Your task to perform on an android device: uninstall "The Home Depot" Image 0: 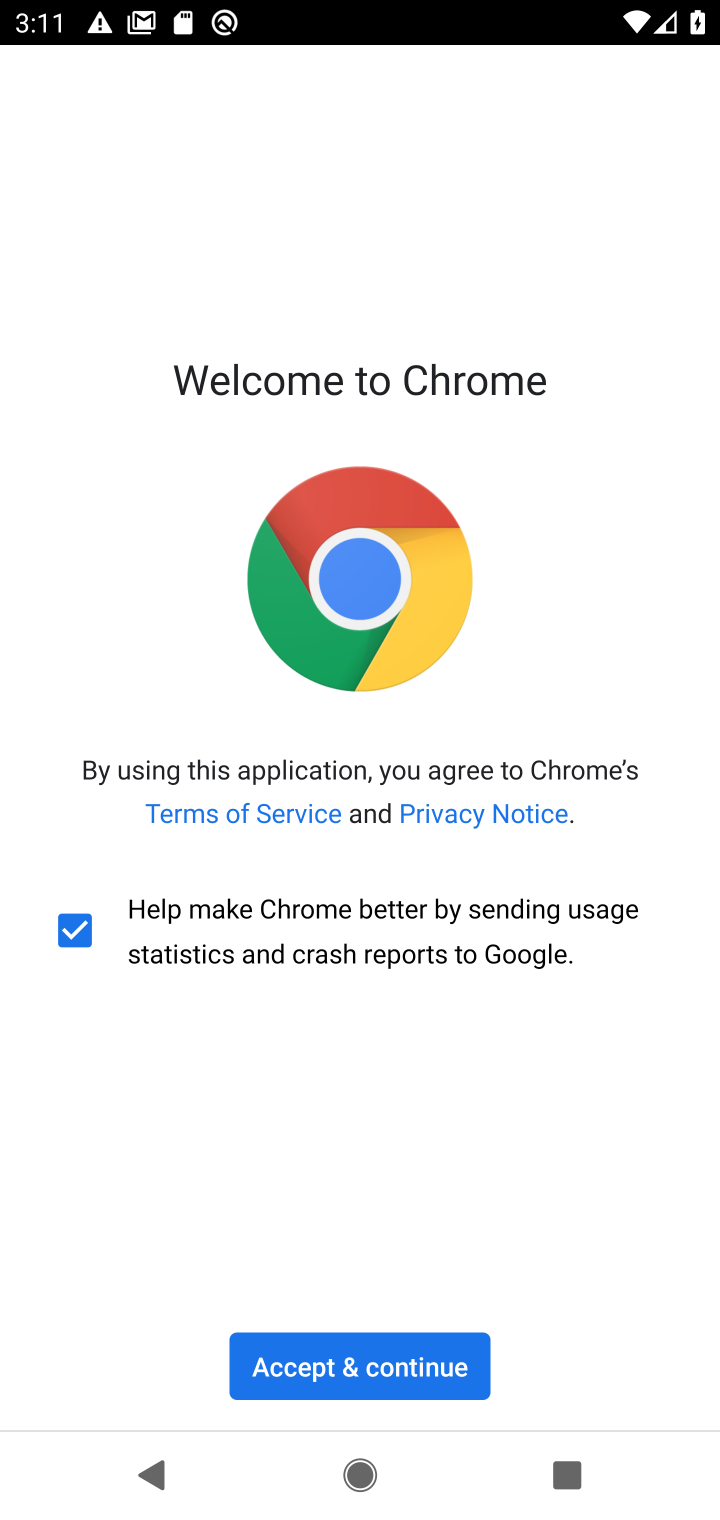
Step 0: press home button
Your task to perform on an android device: uninstall "The Home Depot" Image 1: 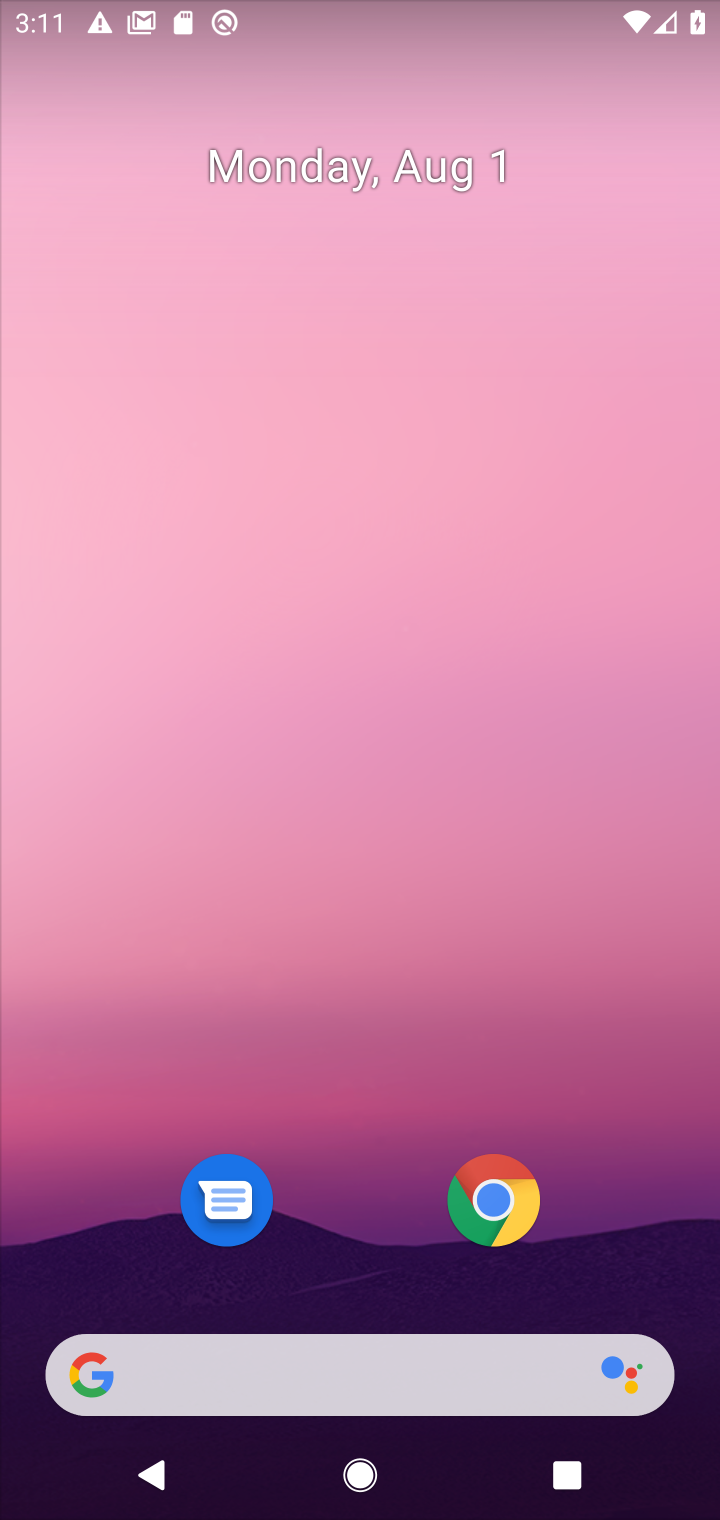
Step 1: drag from (268, 627) to (332, 7)
Your task to perform on an android device: uninstall "The Home Depot" Image 2: 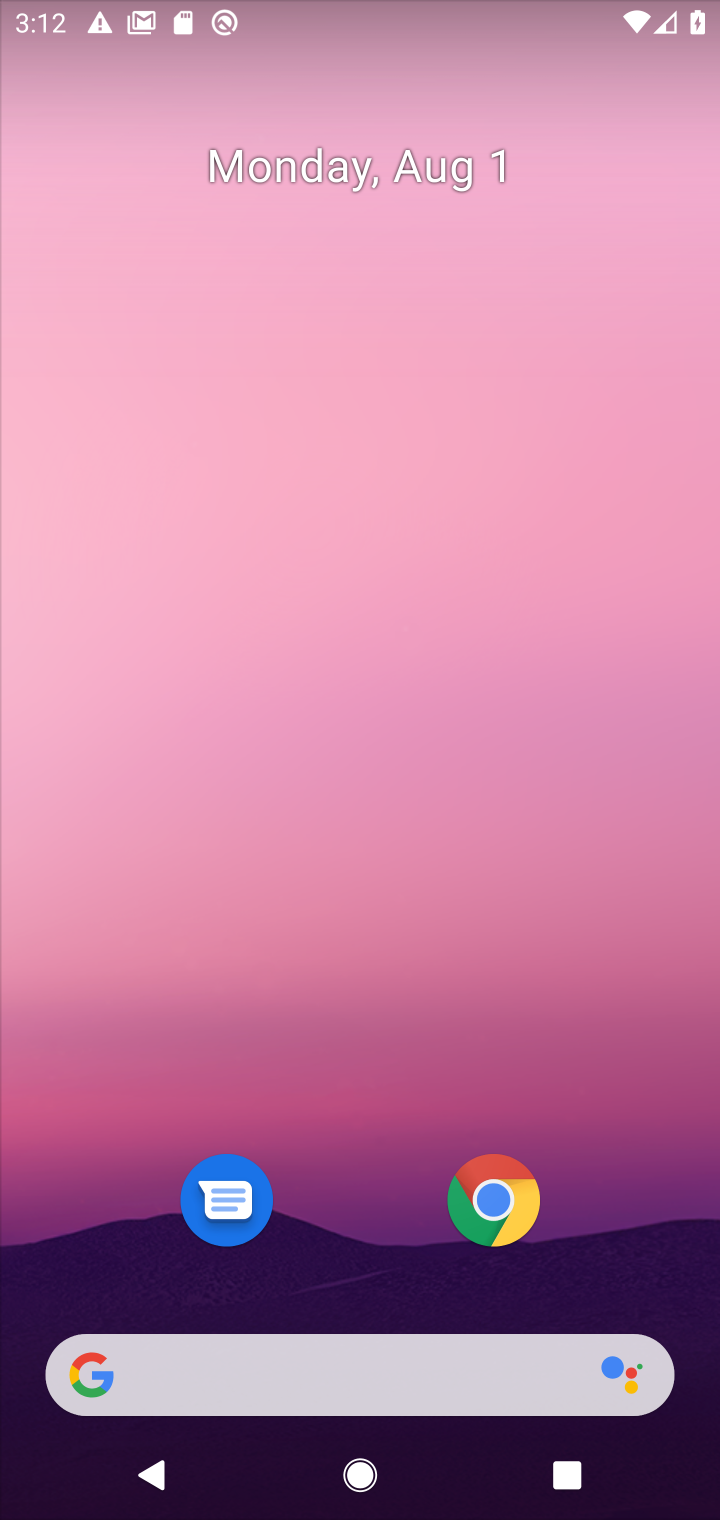
Step 2: drag from (337, 733) to (476, 32)
Your task to perform on an android device: uninstall "The Home Depot" Image 3: 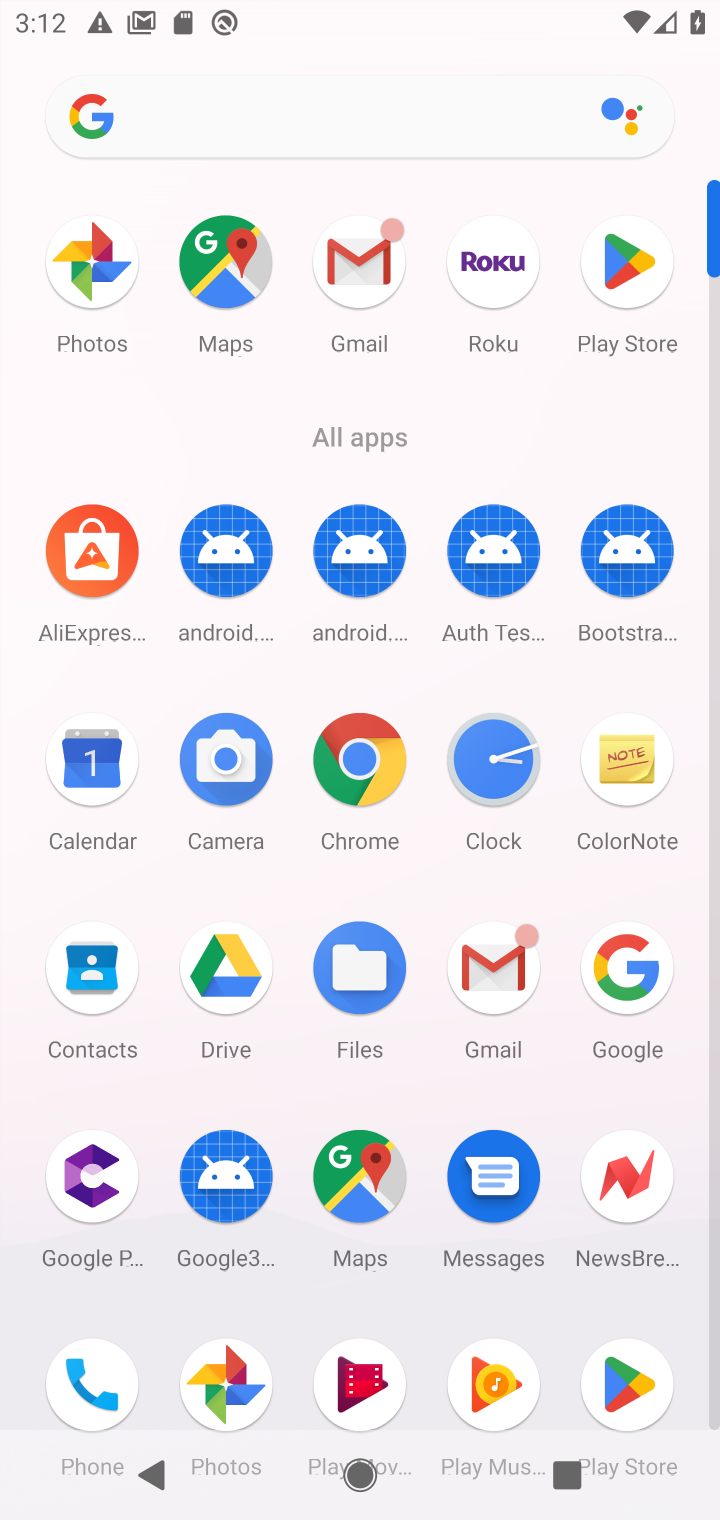
Step 3: click (629, 1355)
Your task to perform on an android device: uninstall "The Home Depot" Image 4: 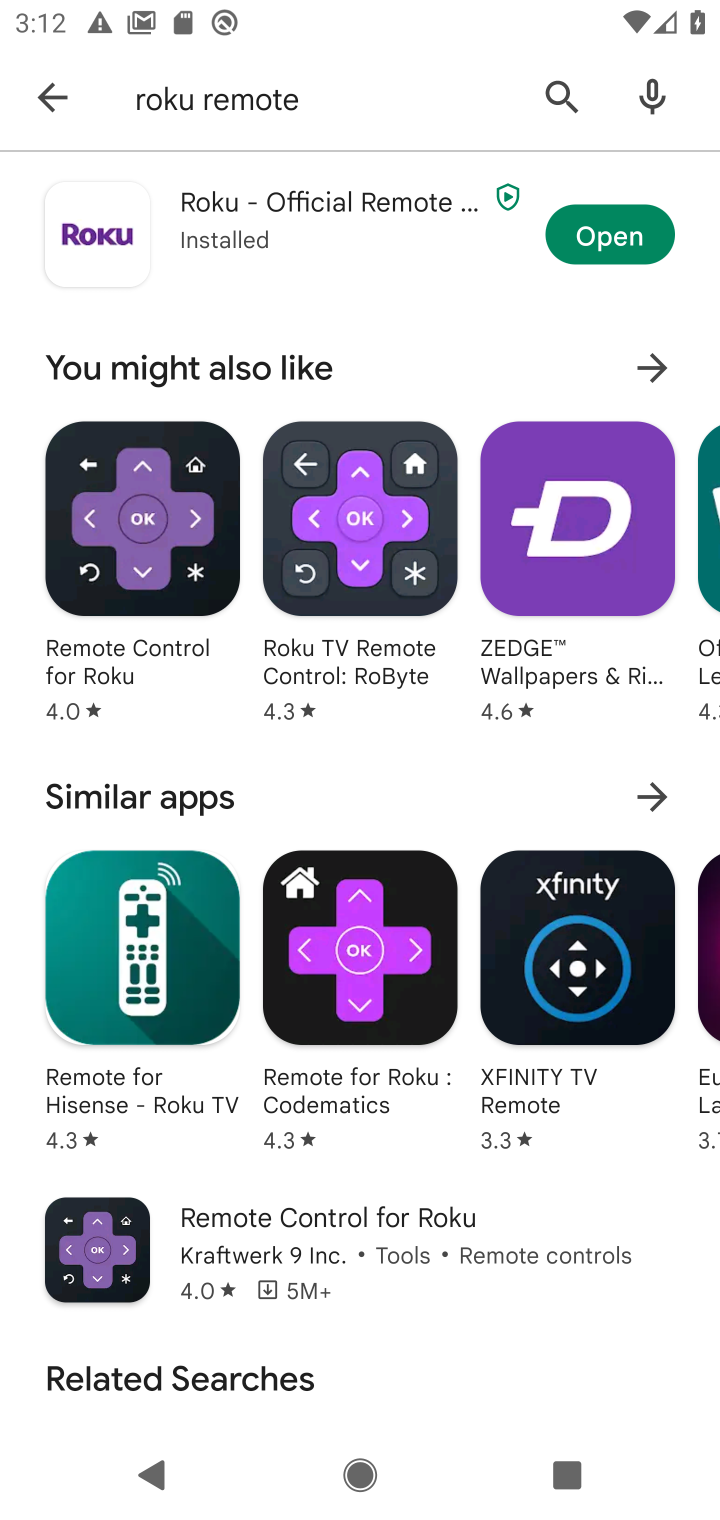
Step 4: click (629, 1355)
Your task to perform on an android device: uninstall "The Home Depot" Image 5: 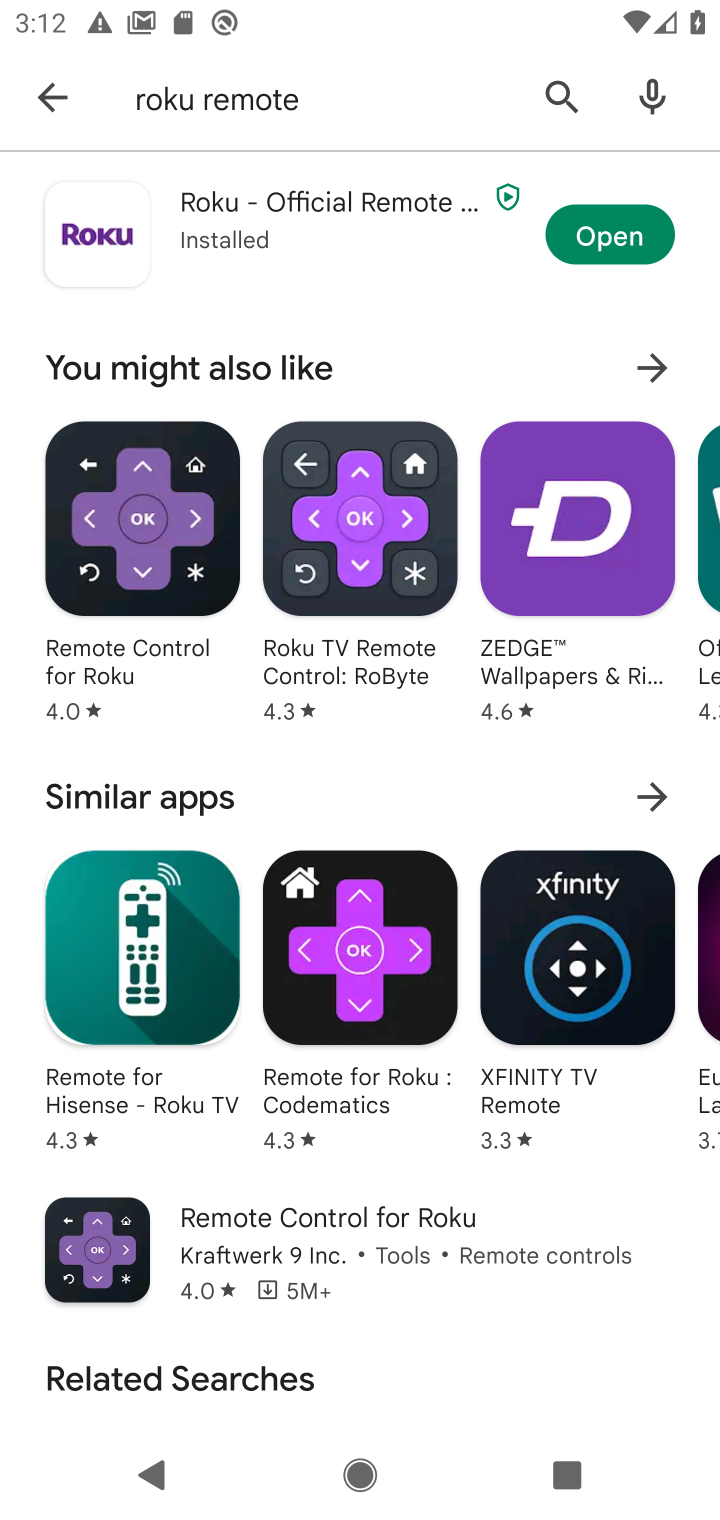
Step 5: click (225, 133)
Your task to perform on an android device: uninstall "The Home Depot" Image 6: 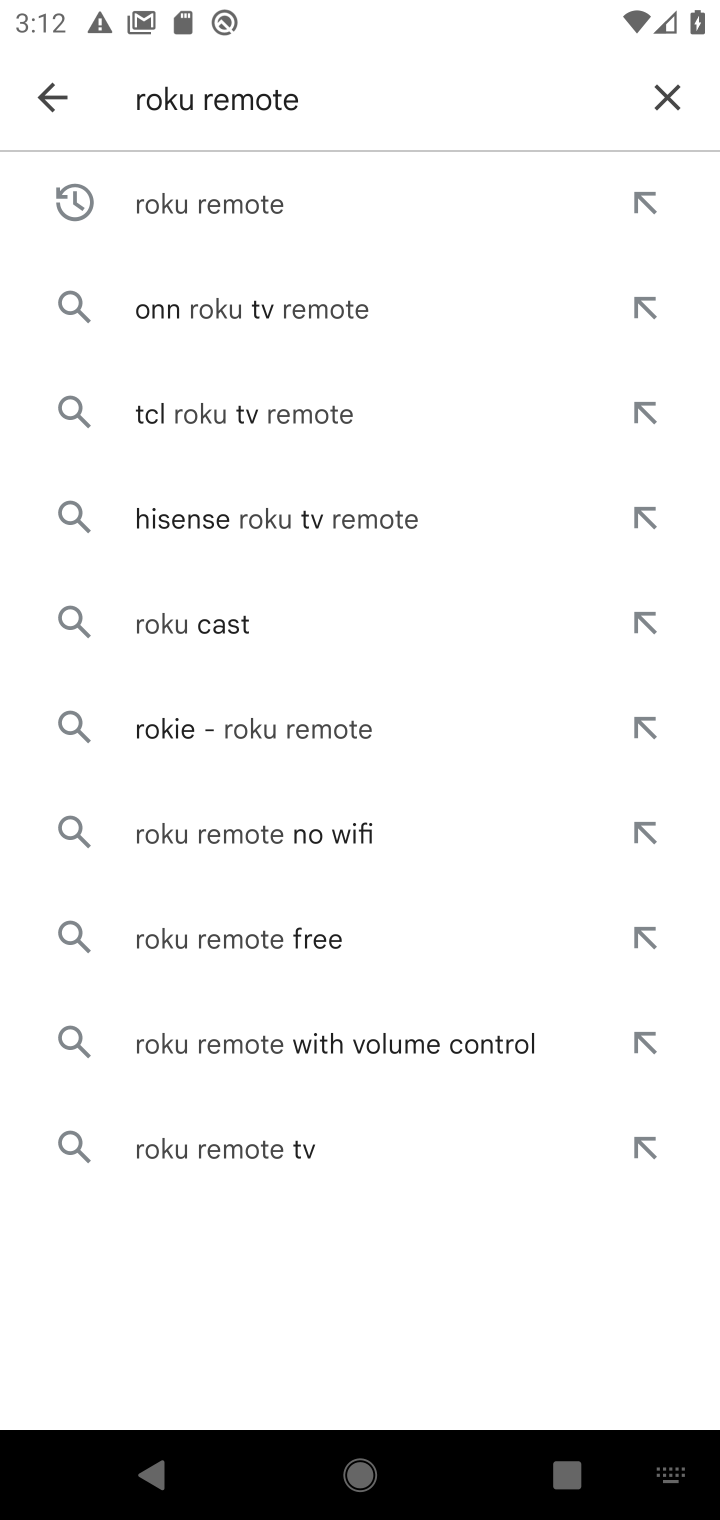
Step 6: click (656, 83)
Your task to perform on an android device: uninstall "The Home Depot" Image 7: 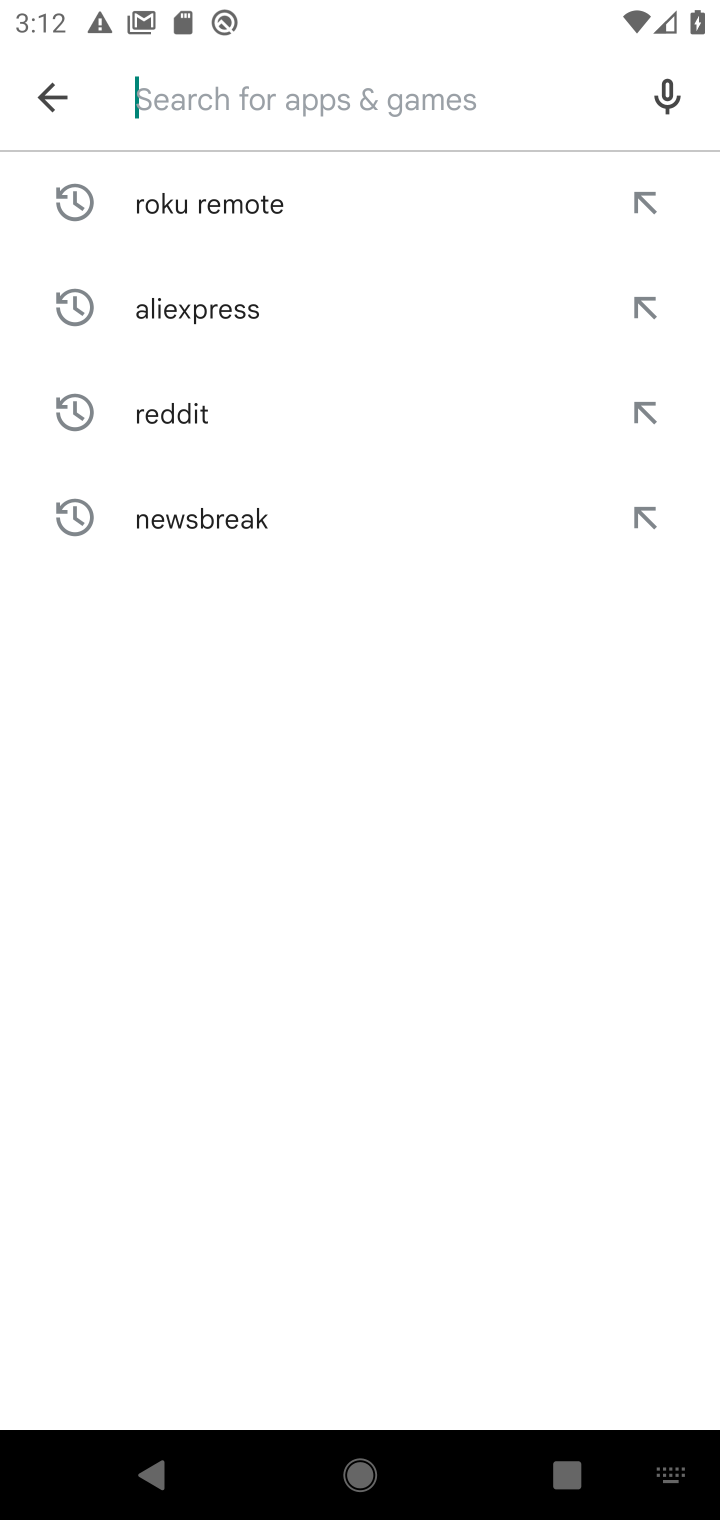
Step 7: type "the home depot"
Your task to perform on an android device: uninstall "The Home Depot" Image 8: 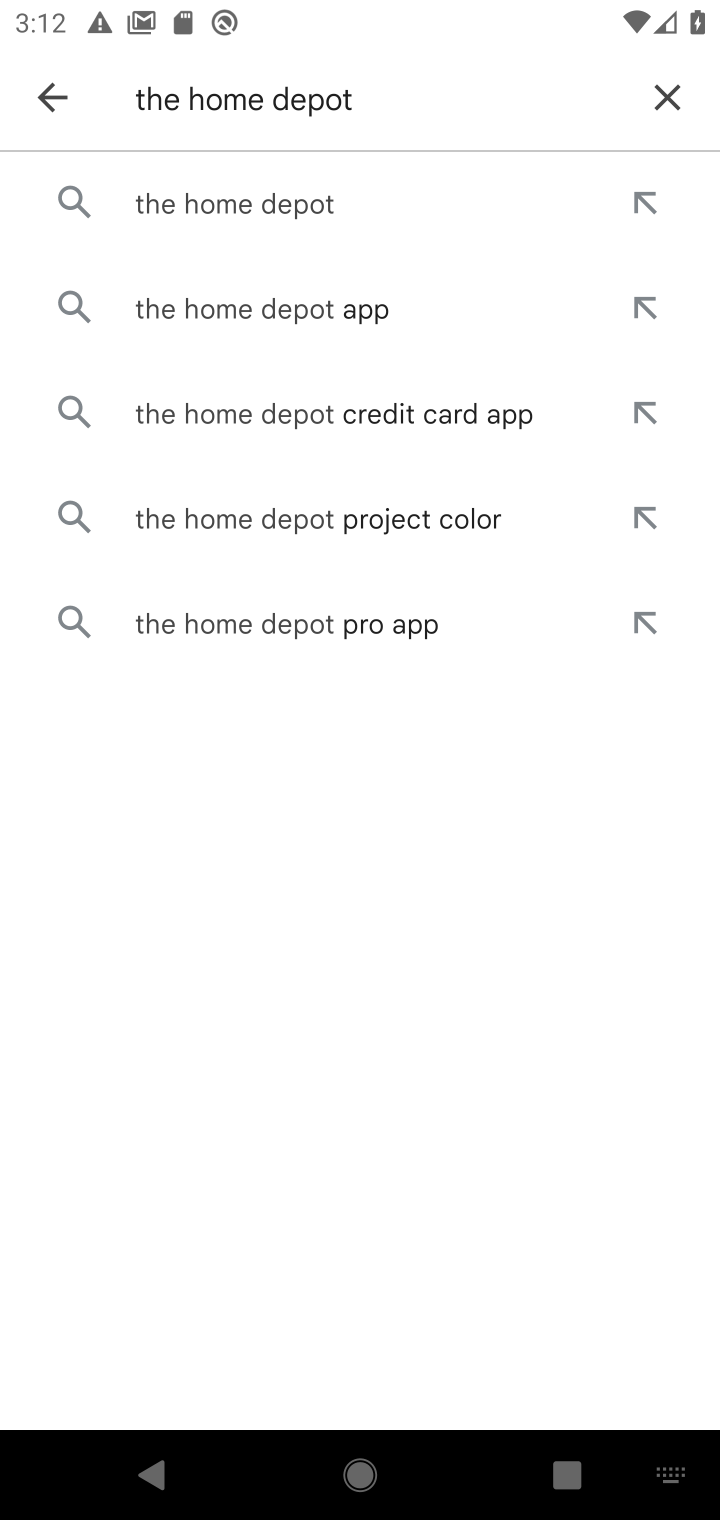
Step 8: click (303, 207)
Your task to perform on an android device: uninstall "The Home Depot" Image 9: 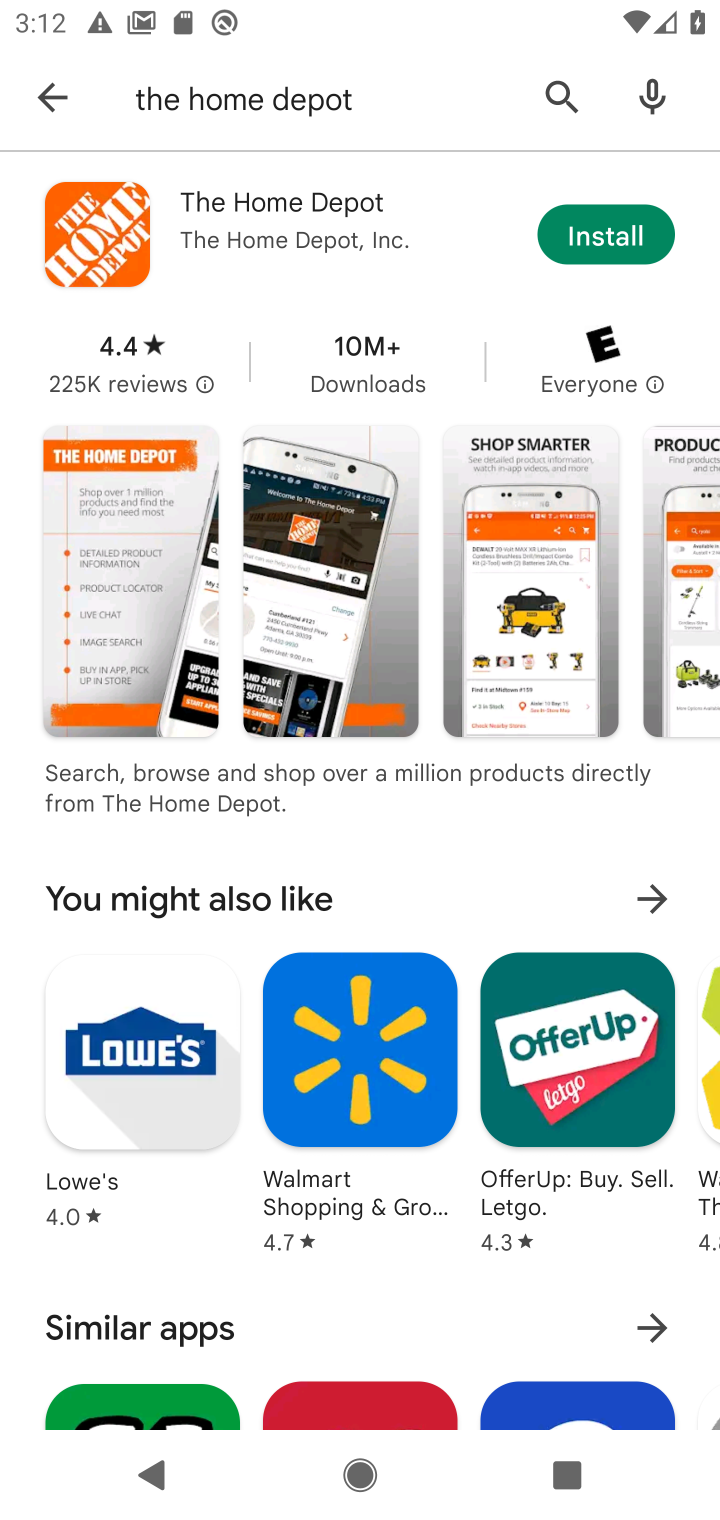
Step 9: task complete